Your task to perform on an android device: Open Wikipedia Image 0: 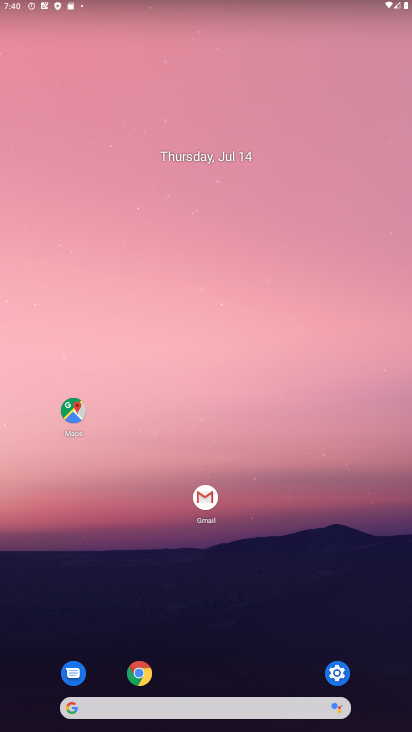
Step 0: click (132, 677)
Your task to perform on an android device: Open Wikipedia Image 1: 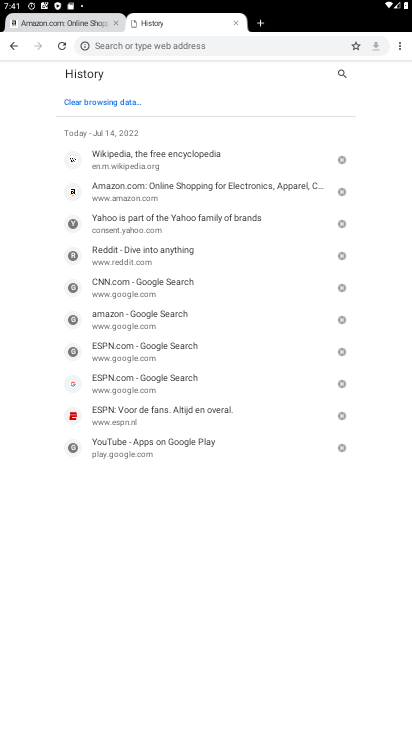
Step 1: click (399, 42)
Your task to perform on an android device: Open Wikipedia Image 2: 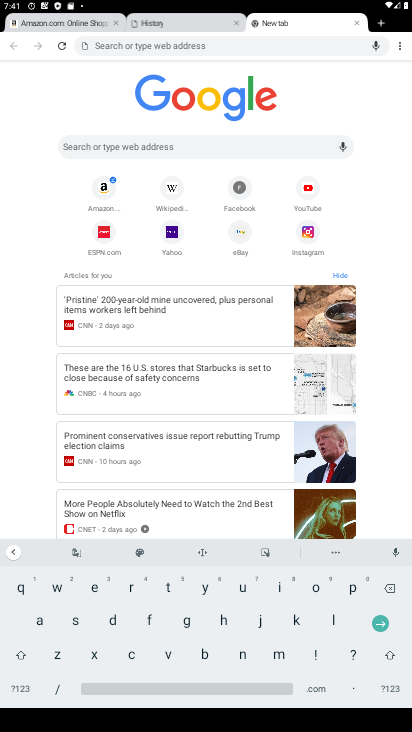
Step 2: click (404, 45)
Your task to perform on an android device: Open Wikipedia Image 3: 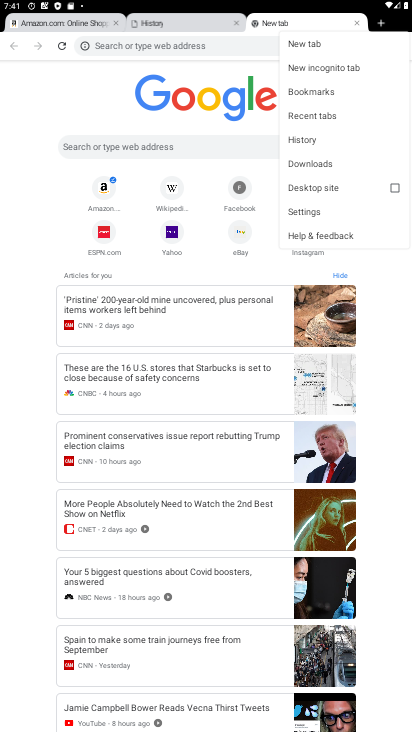
Step 3: click (178, 196)
Your task to perform on an android device: Open Wikipedia Image 4: 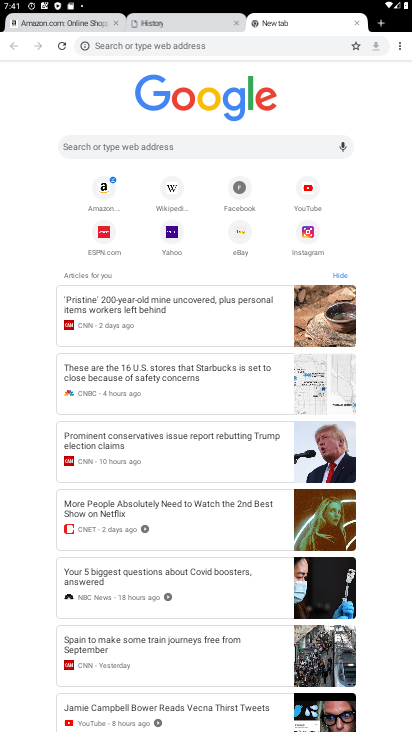
Step 4: click (175, 191)
Your task to perform on an android device: Open Wikipedia Image 5: 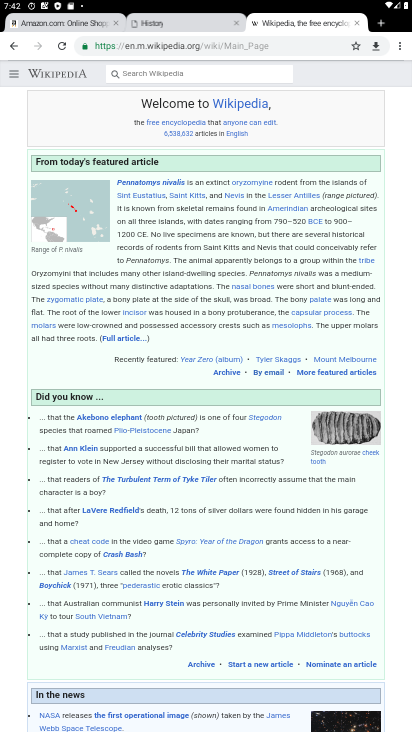
Step 5: task complete